Your task to perform on an android device: Open calendar and show me the fourth week of next month Image 0: 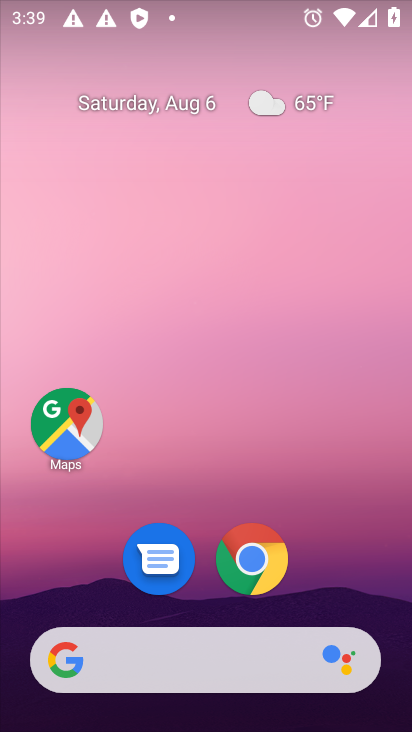
Step 0: drag from (281, 444) to (321, 0)
Your task to perform on an android device: Open calendar and show me the fourth week of next month Image 1: 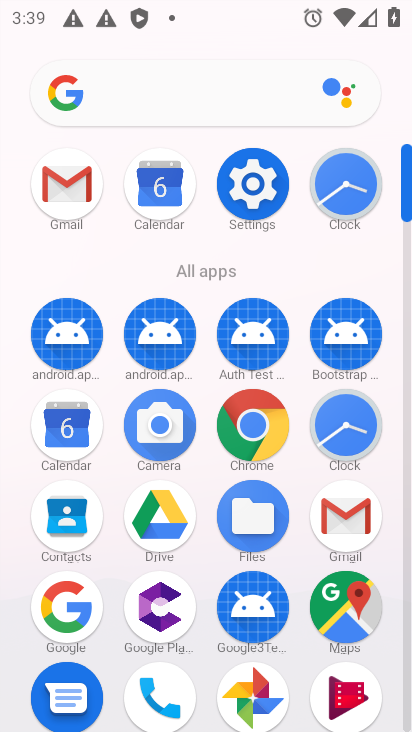
Step 1: click (155, 186)
Your task to perform on an android device: Open calendar and show me the fourth week of next month Image 2: 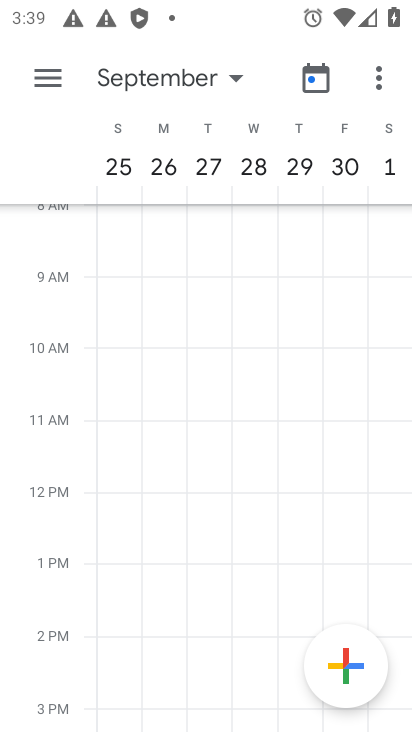
Step 2: task complete